Your task to perform on an android device: turn smart compose on in the gmail app Image 0: 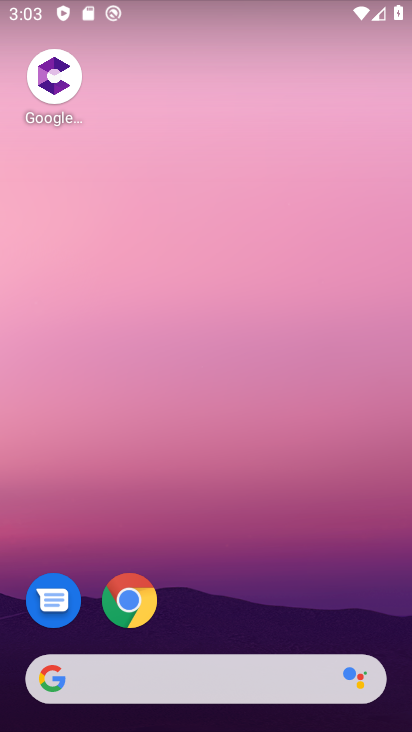
Step 0: drag from (264, 626) to (272, 258)
Your task to perform on an android device: turn smart compose on in the gmail app Image 1: 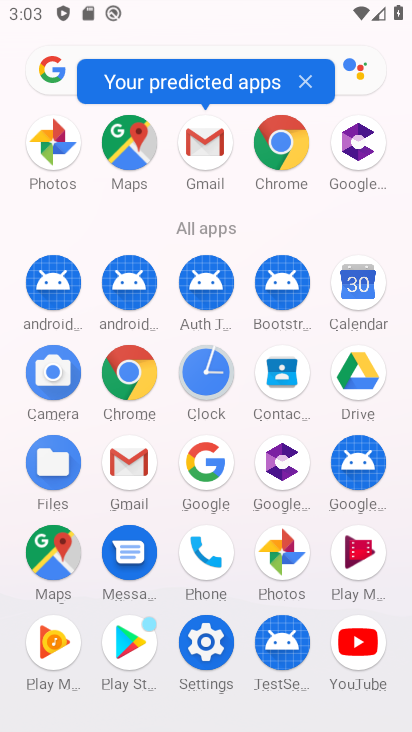
Step 1: click (217, 149)
Your task to perform on an android device: turn smart compose on in the gmail app Image 2: 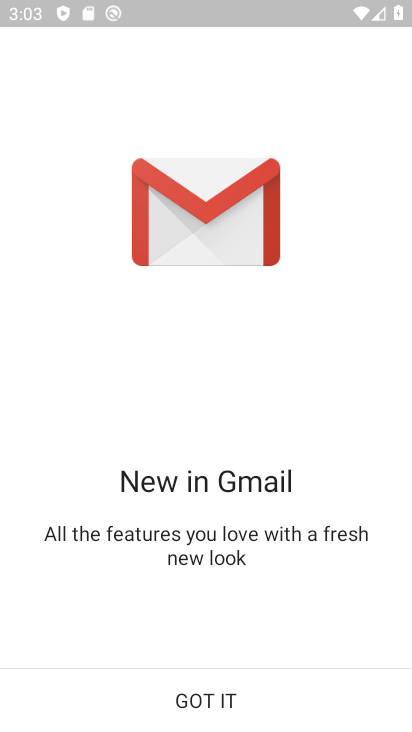
Step 2: click (221, 700)
Your task to perform on an android device: turn smart compose on in the gmail app Image 3: 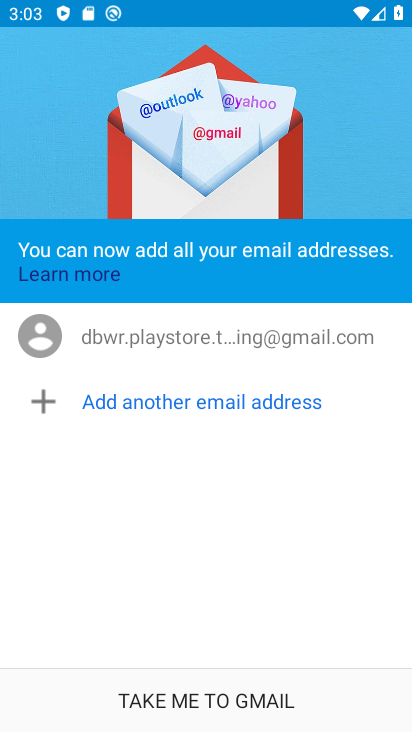
Step 3: click (221, 700)
Your task to perform on an android device: turn smart compose on in the gmail app Image 4: 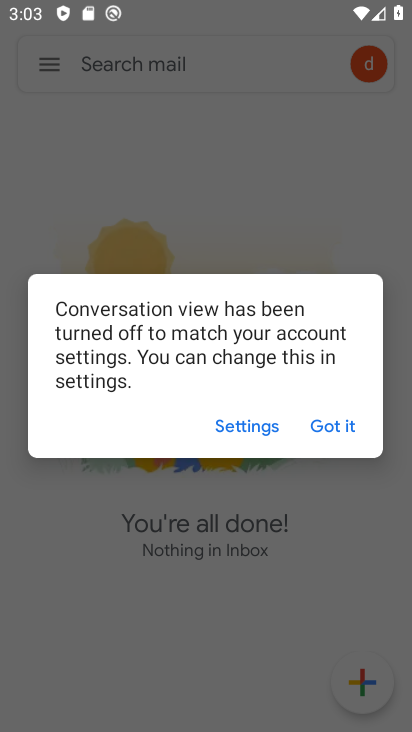
Step 4: click (338, 432)
Your task to perform on an android device: turn smart compose on in the gmail app Image 5: 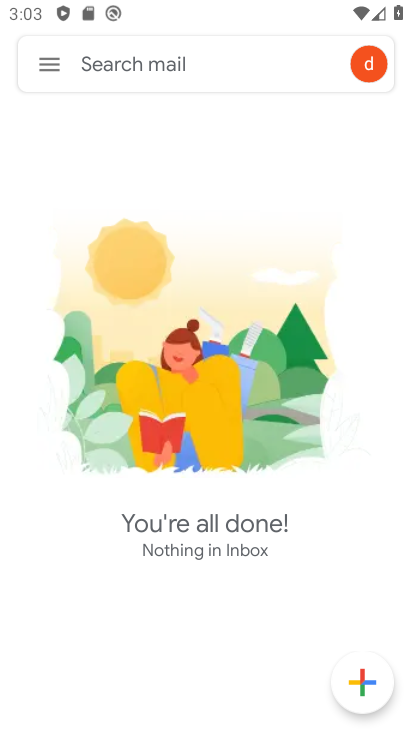
Step 5: click (57, 69)
Your task to perform on an android device: turn smart compose on in the gmail app Image 6: 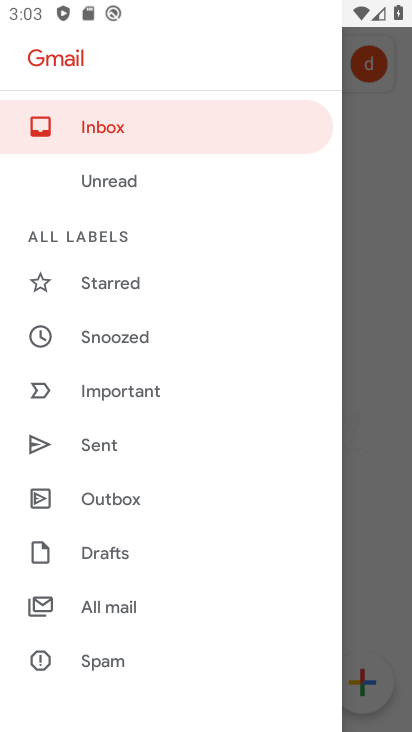
Step 6: drag from (194, 654) to (144, 205)
Your task to perform on an android device: turn smart compose on in the gmail app Image 7: 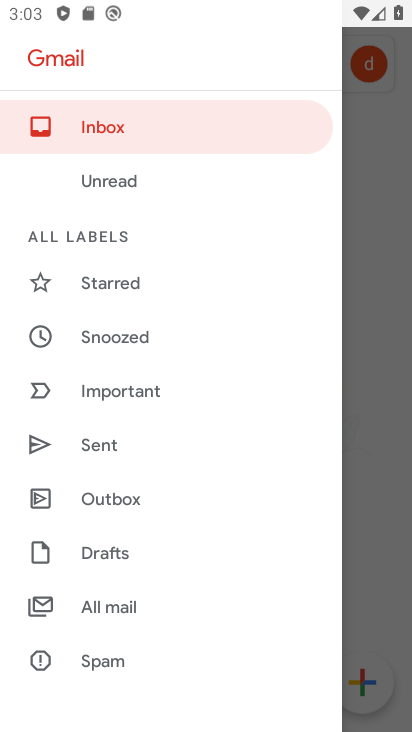
Step 7: drag from (208, 605) to (166, 155)
Your task to perform on an android device: turn smart compose on in the gmail app Image 8: 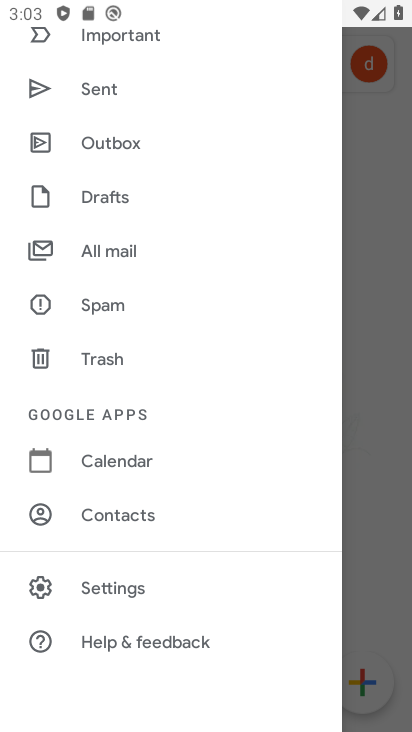
Step 8: click (148, 598)
Your task to perform on an android device: turn smart compose on in the gmail app Image 9: 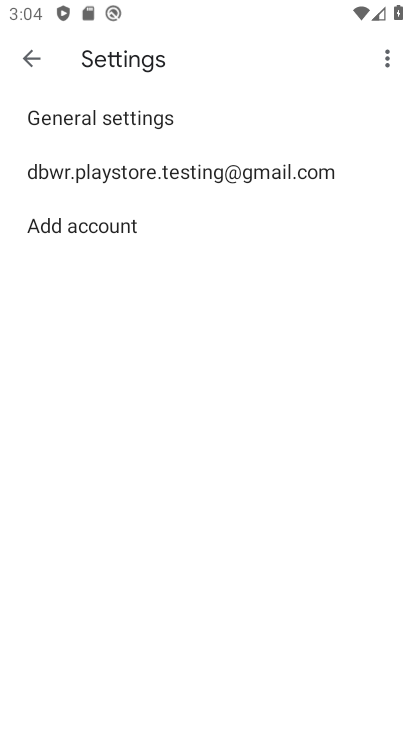
Step 9: click (266, 182)
Your task to perform on an android device: turn smart compose on in the gmail app Image 10: 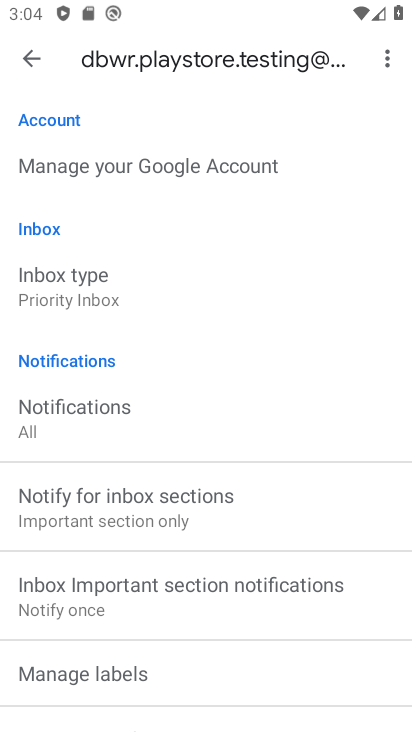
Step 10: task complete